Your task to perform on an android device: Open Yahoo.com Image 0: 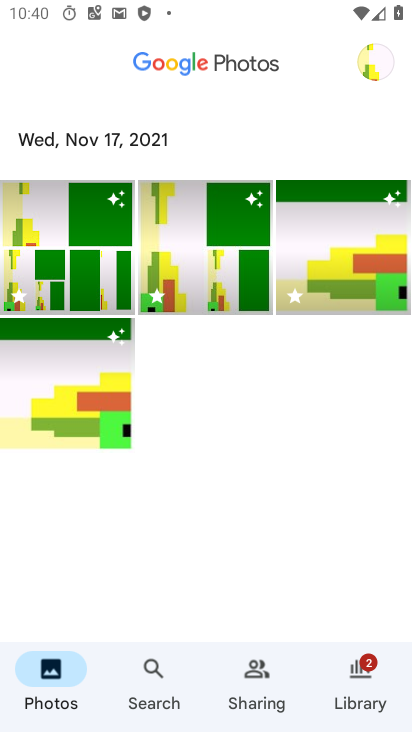
Step 0: press back button
Your task to perform on an android device: Open Yahoo.com Image 1: 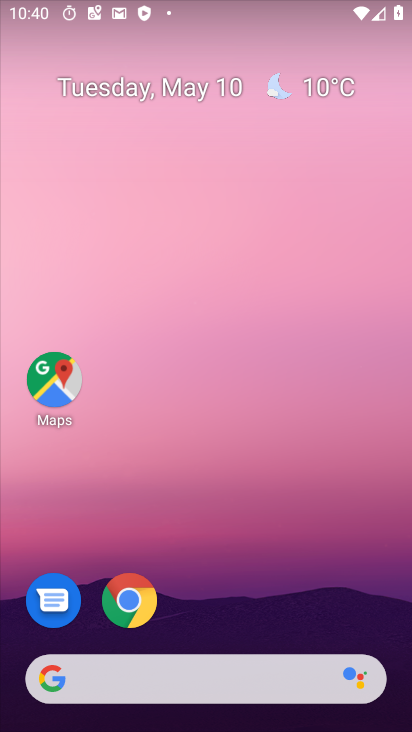
Step 1: drag from (257, 572) to (251, 26)
Your task to perform on an android device: Open Yahoo.com Image 2: 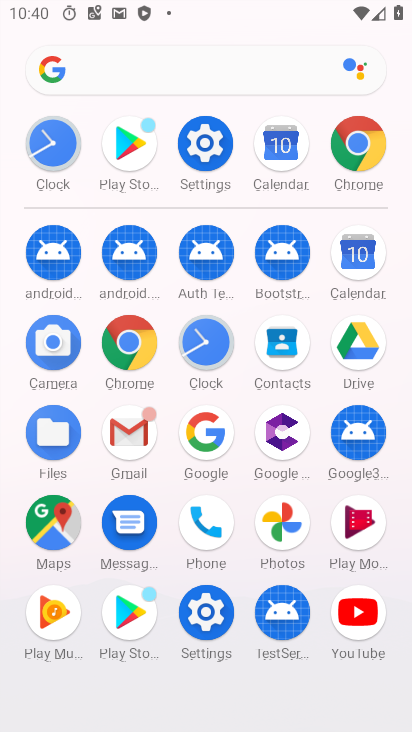
Step 2: click (131, 345)
Your task to perform on an android device: Open Yahoo.com Image 3: 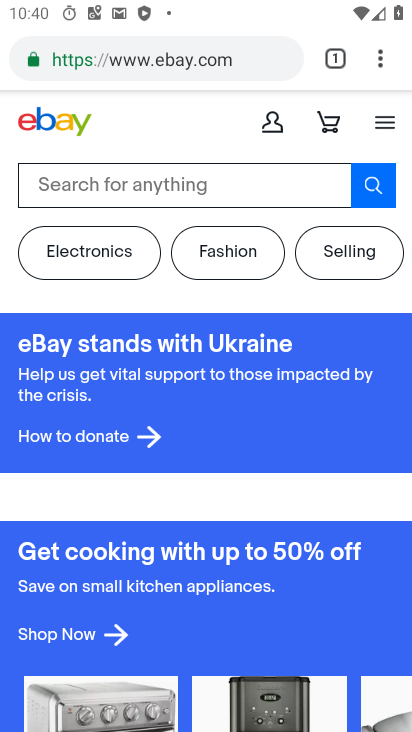
Step 3: click (174, 55)
Your task to perform on an android device: Open Yahoo.com Image 4: 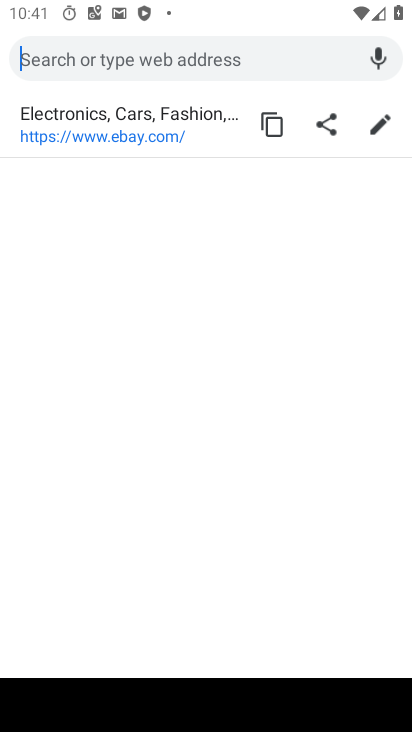
Step 4: type "Yahoo.com"
Your task to perform on an android device: Open Yahoo.com Image 5: 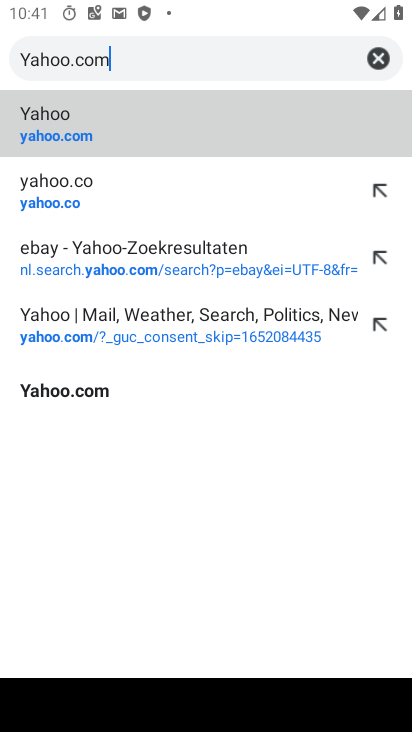
Step 5: type ""
Your task to perform on an android device: Open Yahoo.com Image 6: 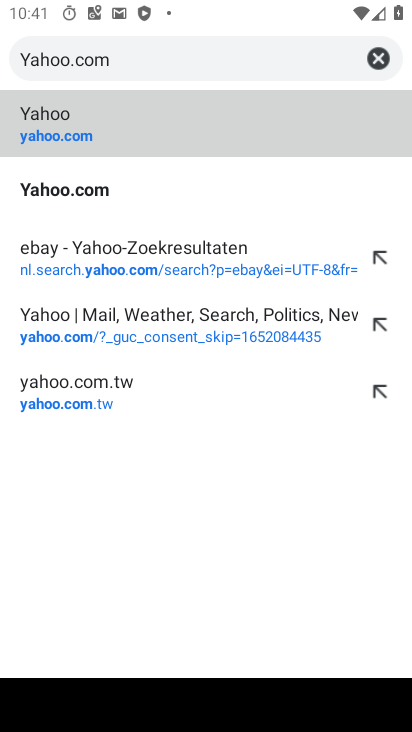
Step 6: click (105, 113)
Your task to perform on an android device: Open Yahoo.com Image 7: 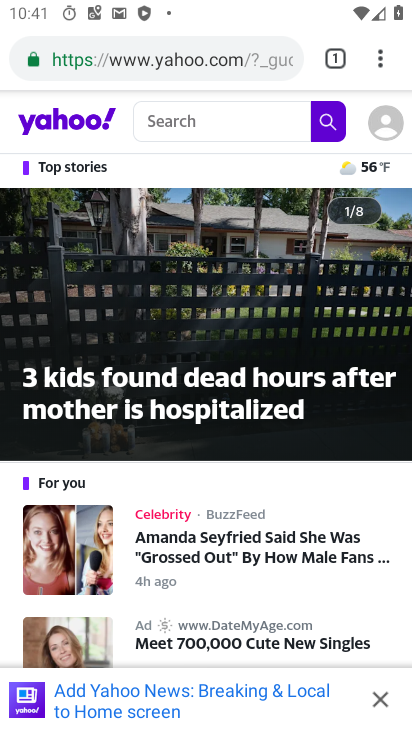
Step 7: task complete